Your task to perform on an android device: open wifi settings Image 0: 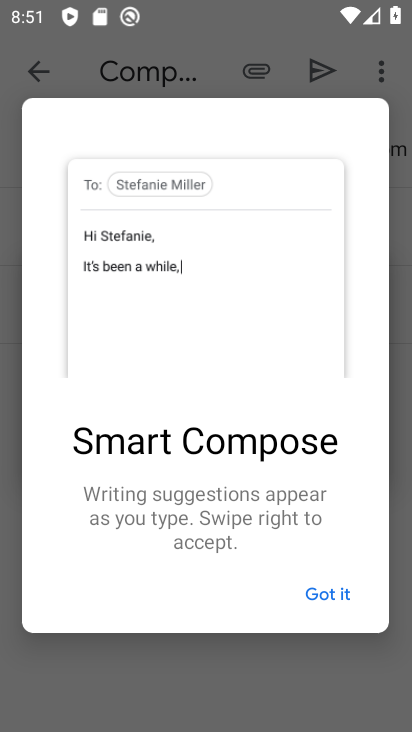
Step 0: press home button
Your task to perform on an android device: open wifi settings Image 1: 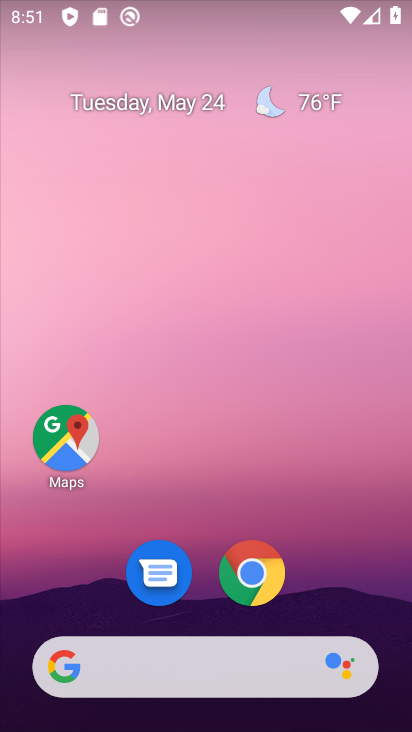
Step 1: drag from (78, 619) to (181, 268)
Your task to perform on an android device: open wifi settings Image 2: 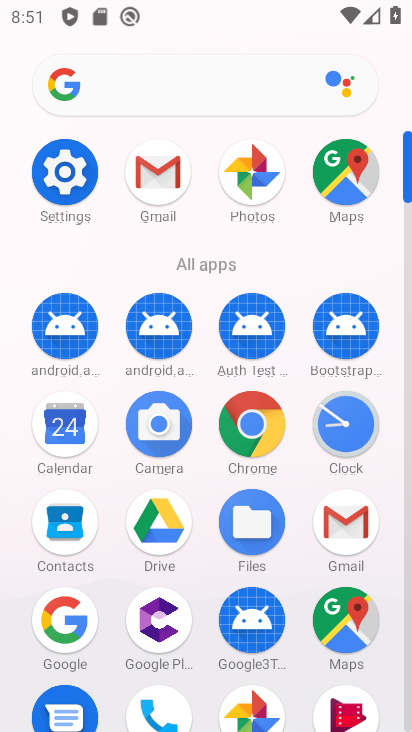
Step 2: drag from (209, 560) to (234, 373)
Your task to perform on an android device: open wifi settings Image 3: 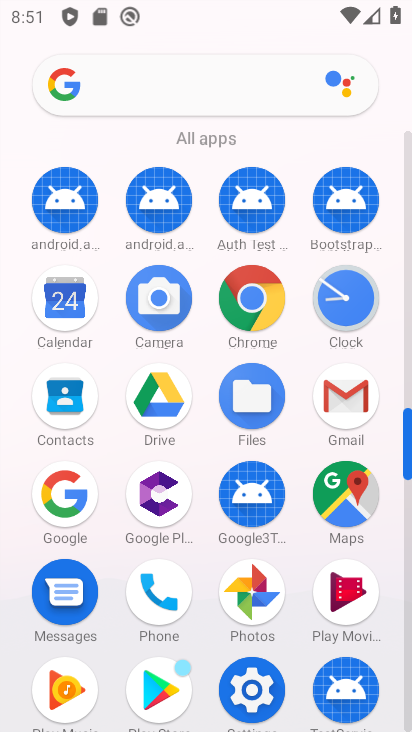
Step 3: click (252, 708)
Your task to perform on an android device: open wifi settings Image 4: 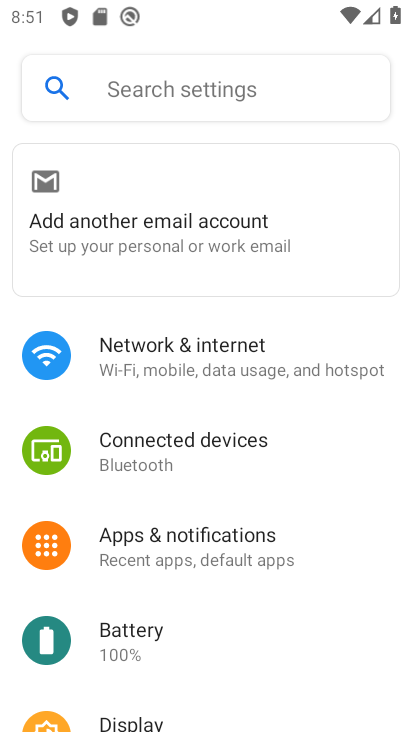
Step 4: click (265, 378)
Your task to perform on an android device: open wifi settings Image 5: 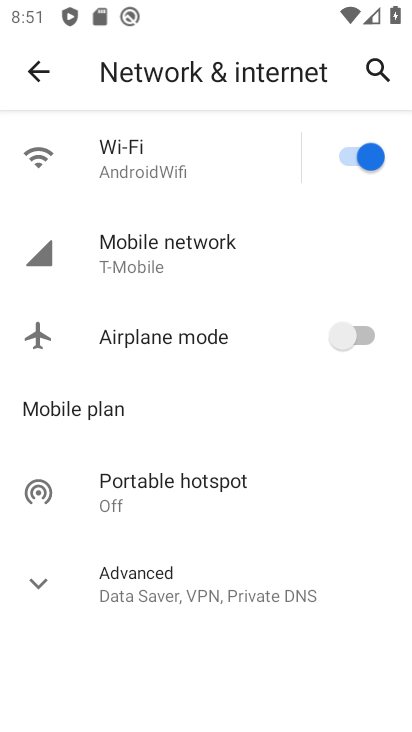
Step 5: click (196, 180)
Your task to perform on an android device: open wifi settings Image 6: 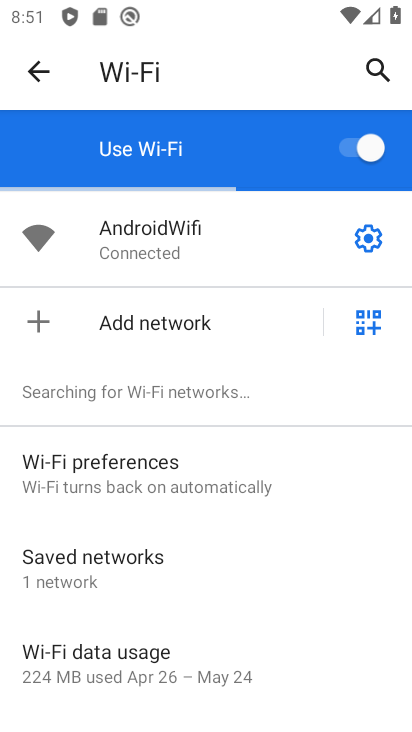
Step 6: task complete